Your task to perform on an android device: Open Android settings Image 0: 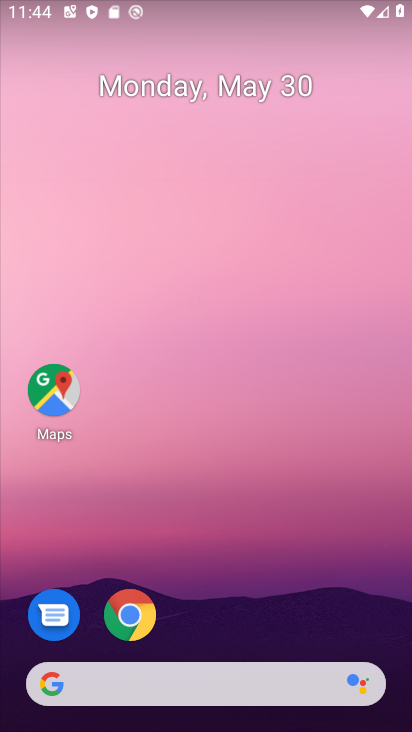
Step 0: drag from (367, 618) to (369, 217)
Your task to perform on an android device: Open Android settings Image 1: 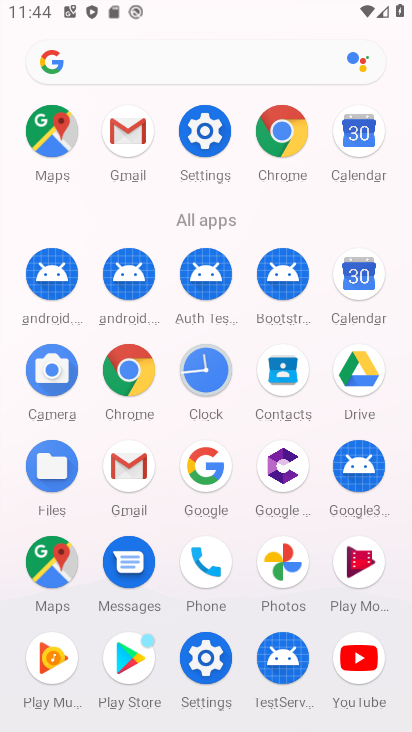
Step 1: click (203, 152)
Your task to perform on an android device: Open Android settings Image 2: 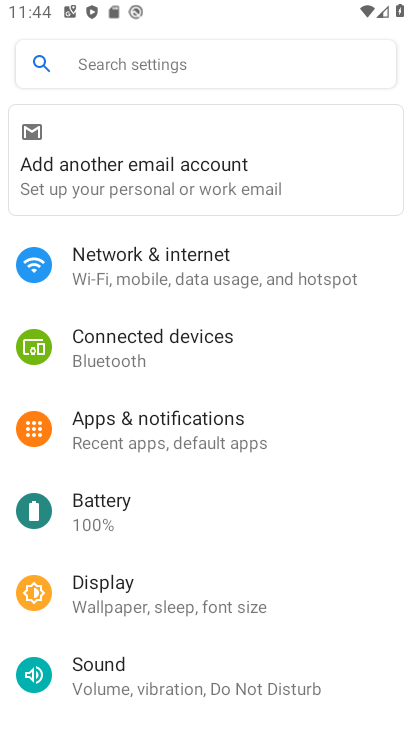
Step 2: drag from (325, 438) to (327, 351)
Your task to perform on an android device: Open Android settings Image 3: 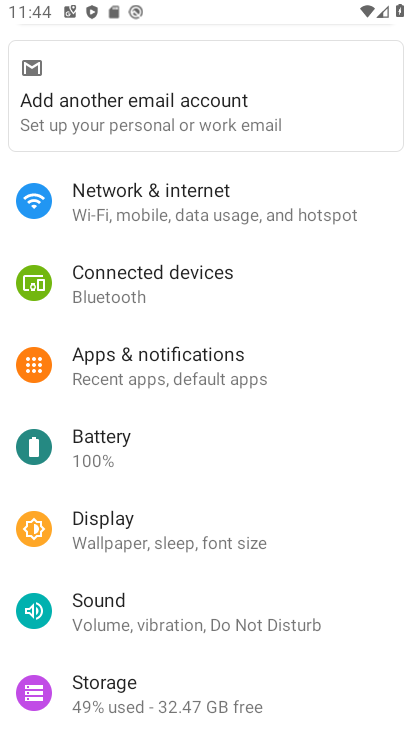
Step 3: drag from (323, 480) to (338, 355)
Your task to perform on an android device: Open Android settings Image 4: 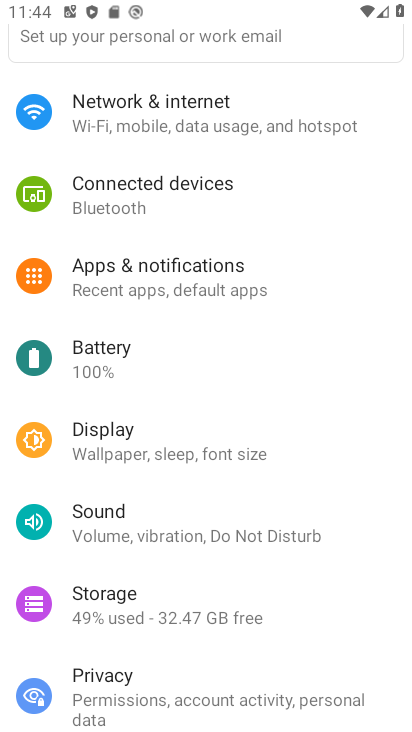
Step 4: drag from (350, 532) to (350, 420)
Your task to perform on an android device: Open Android settings Image 5: 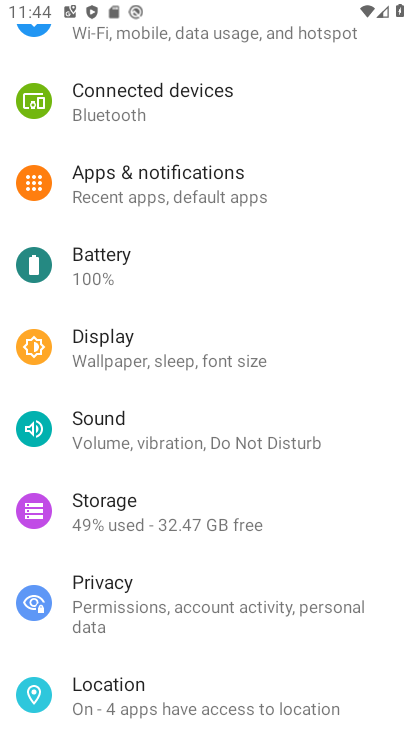
Step 5: drag from (362, 513) to (361, 398)
Your task to perform on an android device: Open Android settings Image 6: 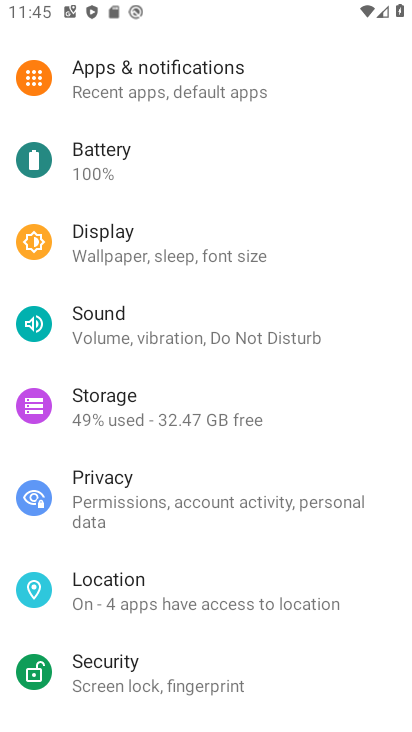
Step 6: drag from (365, 540) to (368, 379)
Your task to perform on an android device: Open Android settings Image 7: 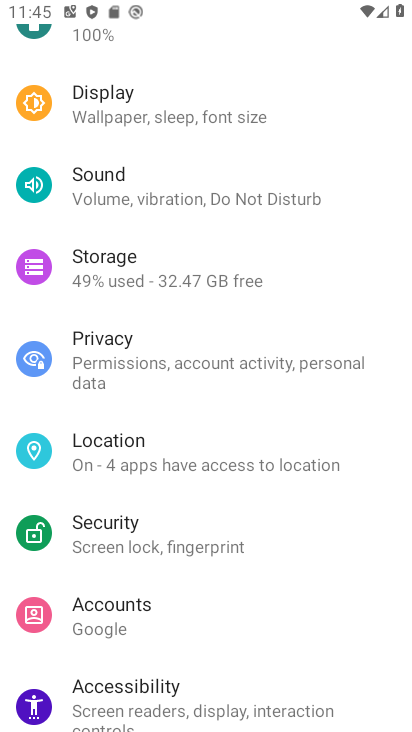
Step 7: drag from (362, 531) to (368, 430)
Your task to perform on an android device: Open Android settings Image 8: 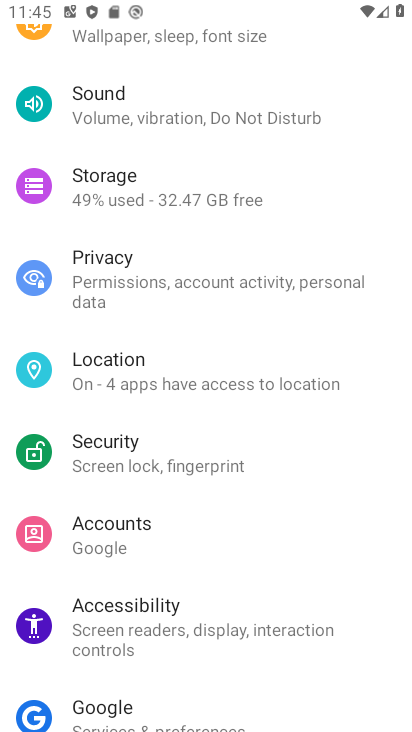
Step 8: drag from (367, 528) to (365, 446)
Your task to perform on an android device: Open Android settings Image 9: 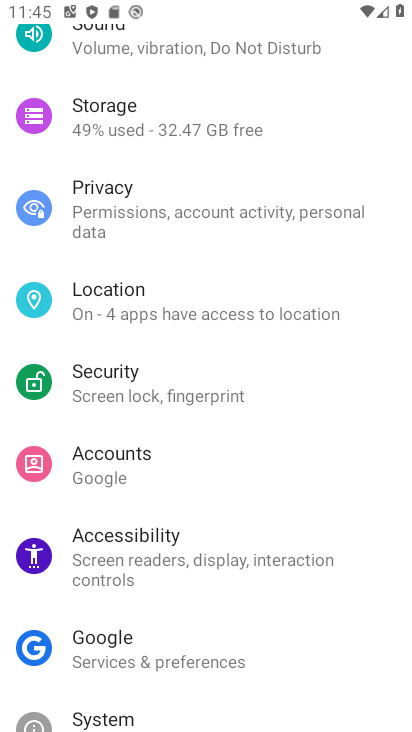
Step 9: drag from (356, 525) to (356, 437)
Your task to perform on an android device: Open Android settings Image 10: 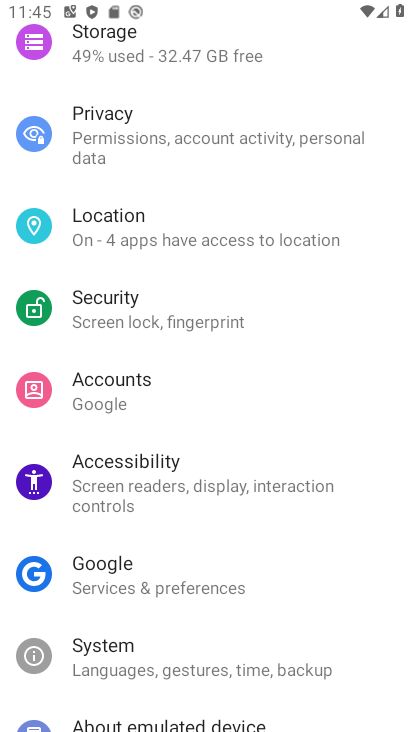
Step 10: drag from (357, 520) to (358, 412)
Your task to perform on an android device: Open Android settings Image 11: 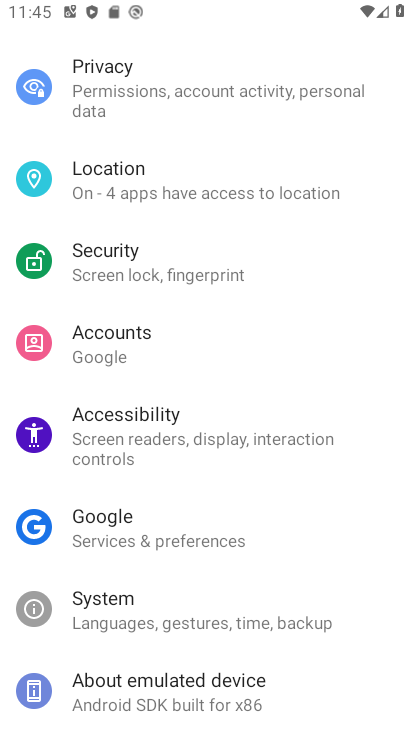
Step 11: drag from (355, 509) to (356, 390)
Your task to perform on an android device: Open Android settings Image 12: 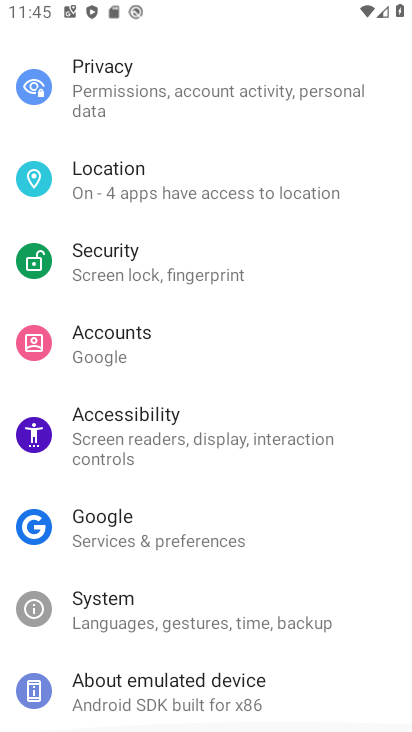
Step 12: click (331, 597)
Your task to perform on an android device: Open Android settings Image 13: 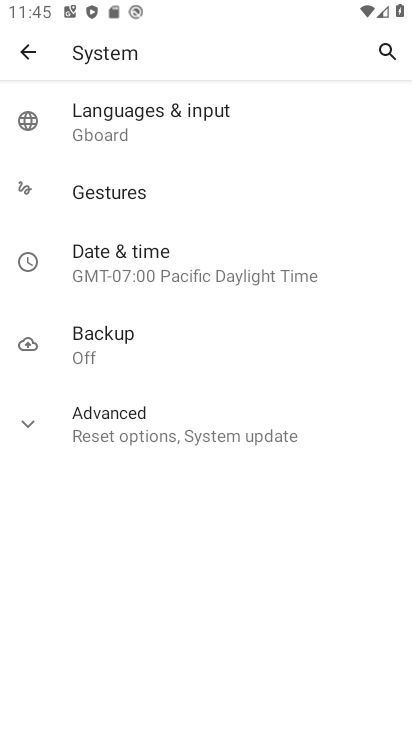
Step 13: click (293, 421)
Your task to perform on an android device: Open Android settings Image 14: 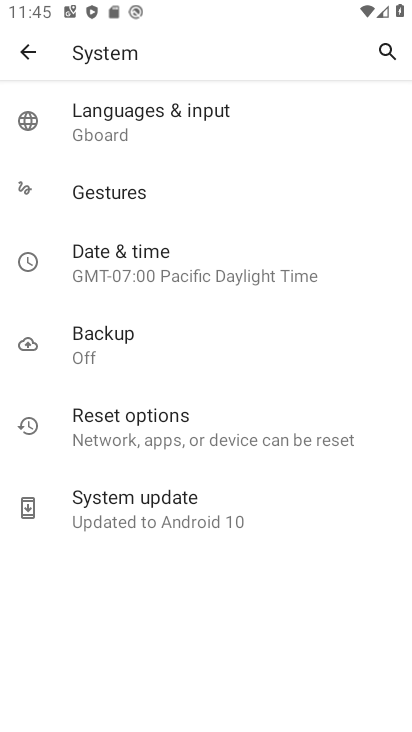
Step 14: task complete